Your task to perform on an android device: Go to Reddit.com Image 0: 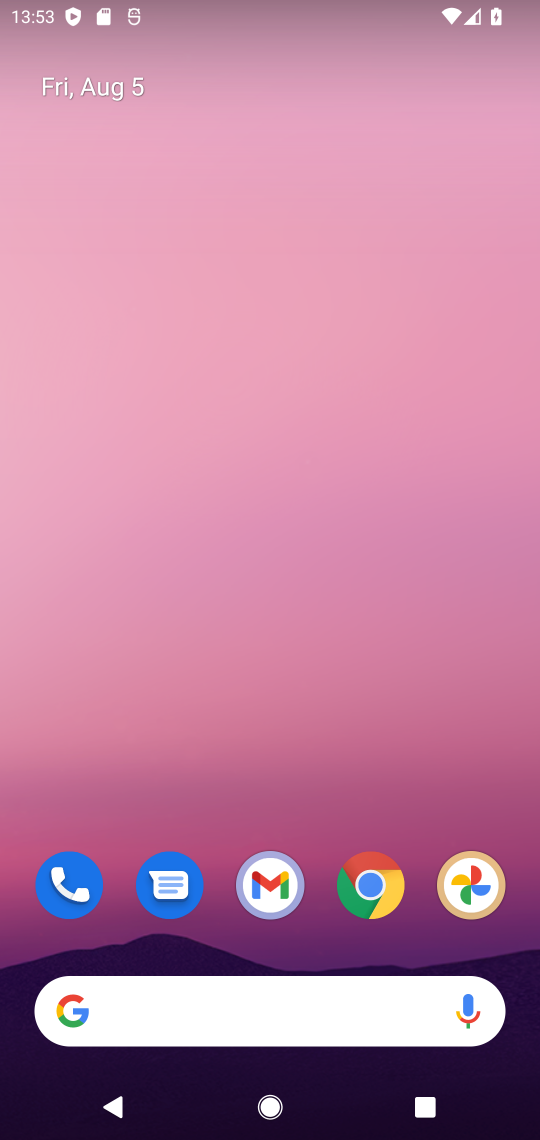
Step 0: click (377, 890)
Your task to perform on an android device: Go to Reddit.com Image 1: 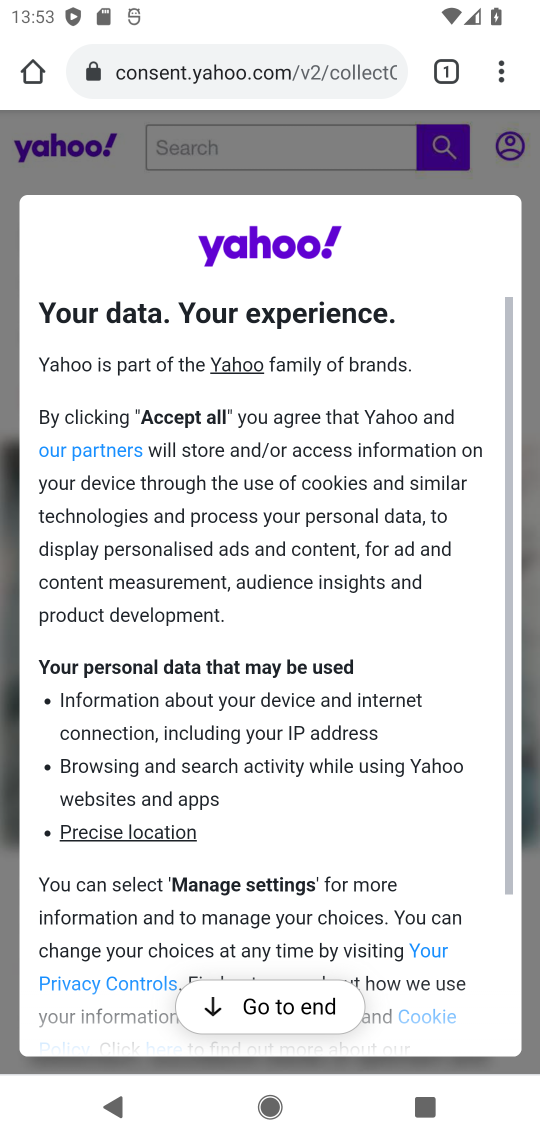
Step 1: click (336, 59)
Your task to perform on an android device: Go to Reddit.com Image 2: 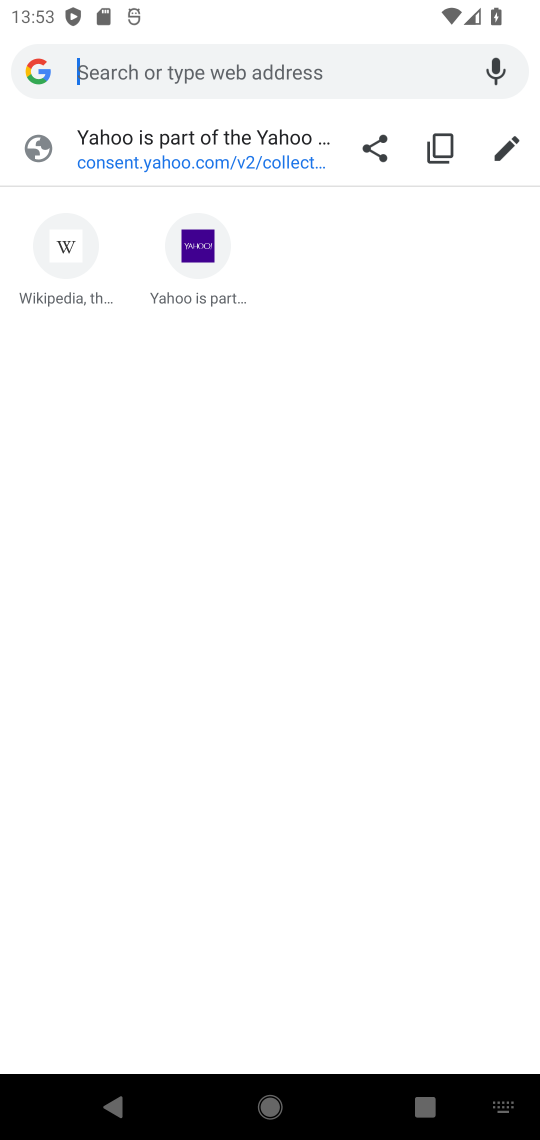
Step 2: type "www.reddit.com"
Your task to perform on an android device: Go to Reddit.com Image 3: 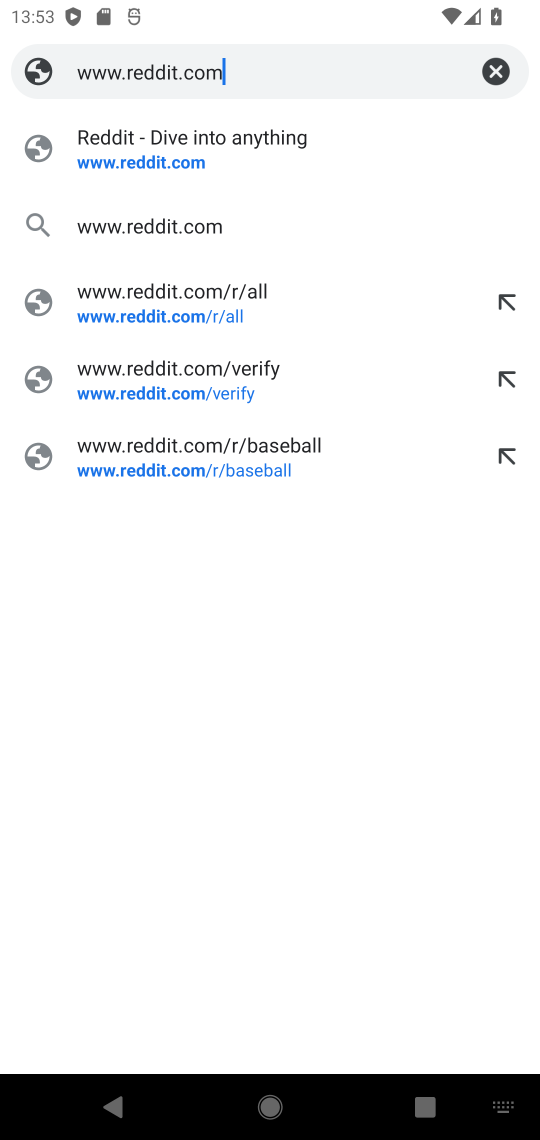
Step 3: click (135, 159)
Your task to perform on an android device: Go to Reddit.com Image 4: 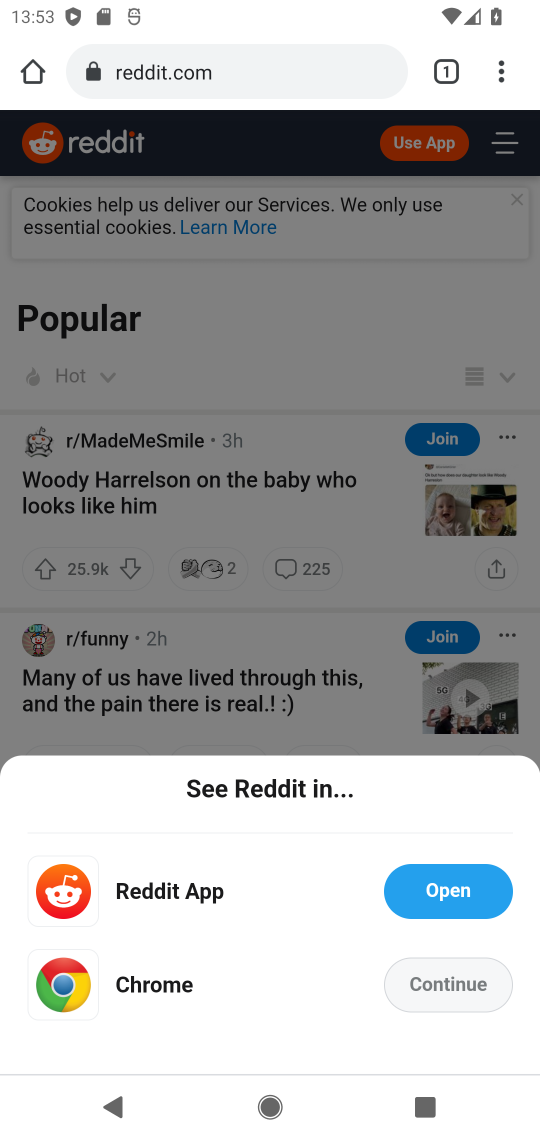
Step 4: task complete